Your task to perform on an android device: Open CNN.com Image 0: 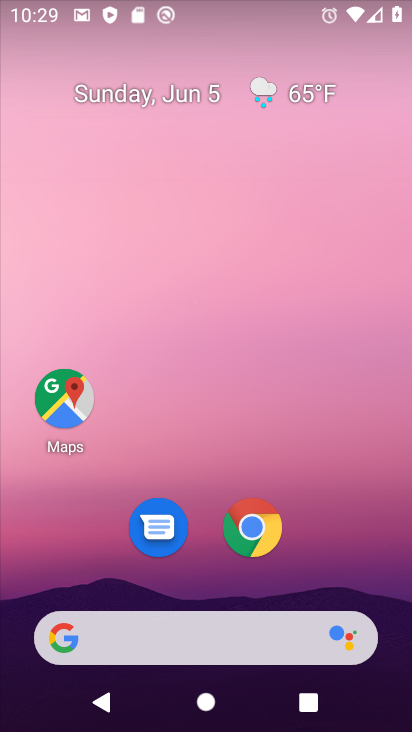
Step 0: click (242, 542)
Your task to perform on an android device: Open CNN.com Image 1: 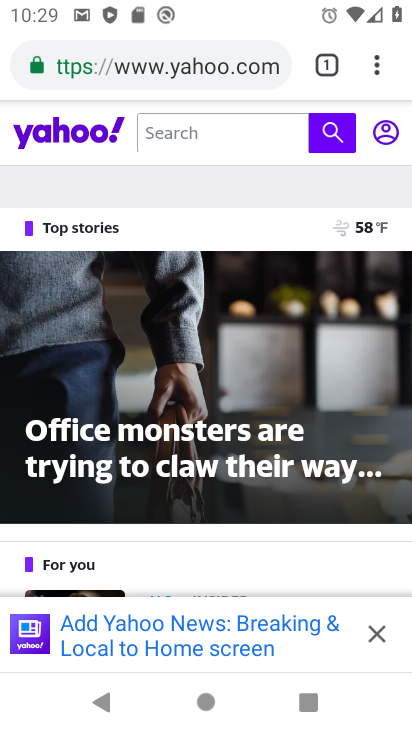
Step 1: click (337, 63)
Your task to perform on an android device: Open CNN.com Image 2: 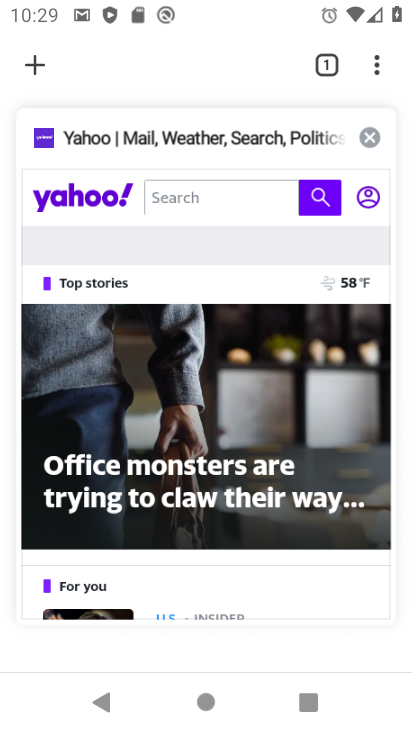
Step 2: click (365, 143)
Your task to perform on an android device: Open CNN.com Image 3: 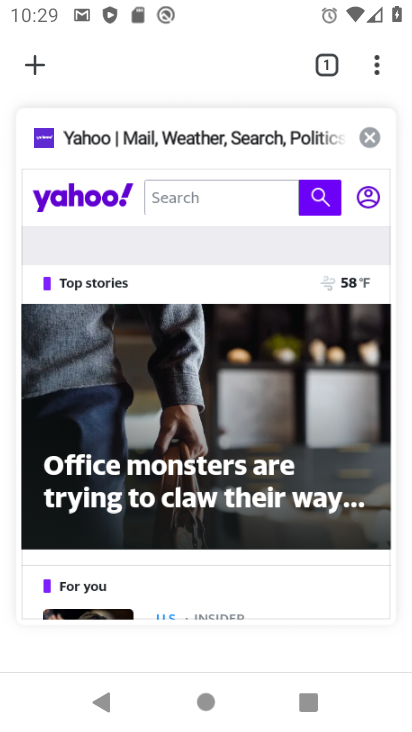
Step 3: click (373, 145)
Your task to perform on an android device: Open CNN.com Image 4: 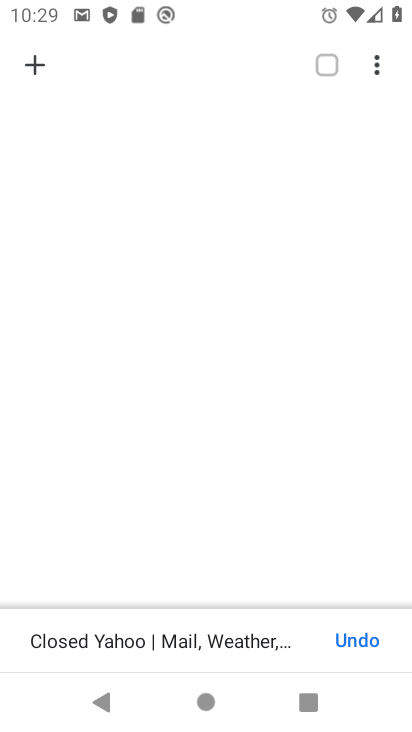
Step 4: click (32, 68)
Your task to perform on an android device: Open CNN.com Image 5: 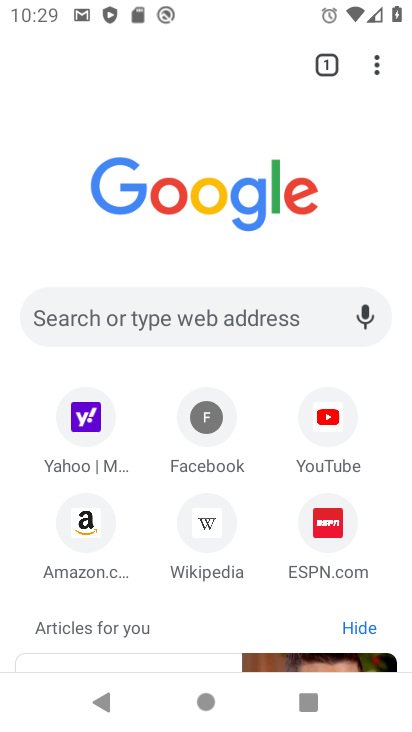
Step 5: click (172, 331)
Your task to perform on an android device: Open CNN.com Image 6: 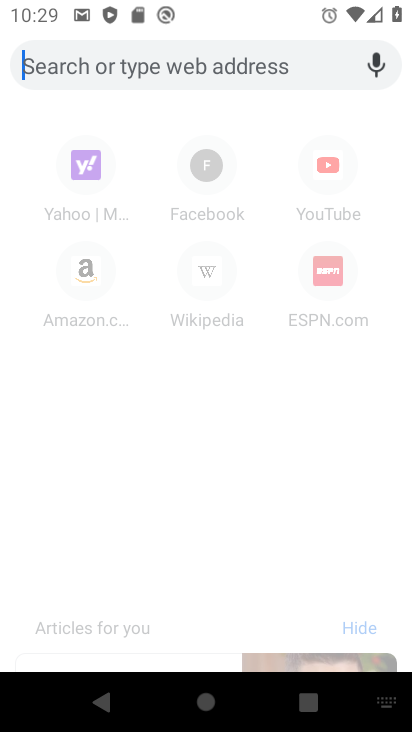
Step 6: type "CNN.com"
Your task to perform on an android device: Open CNN.com Image 7: 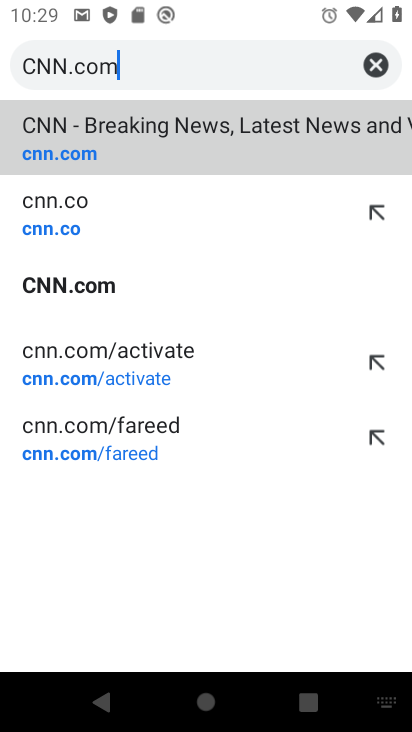
Step 7: type ""
Your task to perform on an android device: Open CNN.com Image 8: 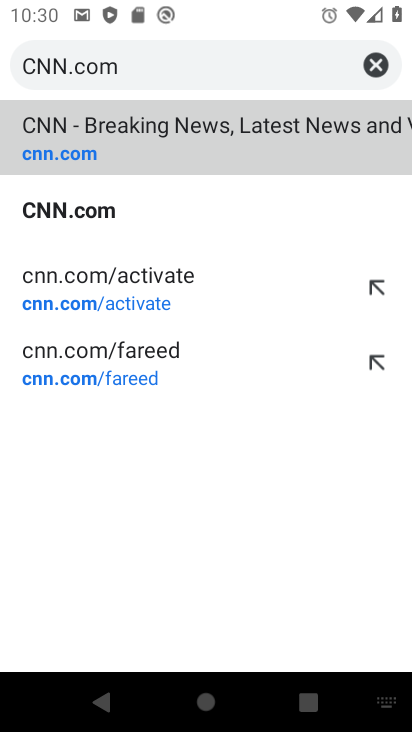
Step 8: click (79, 213)
Your task to perform on an android device: Open CNN.com Image 9: 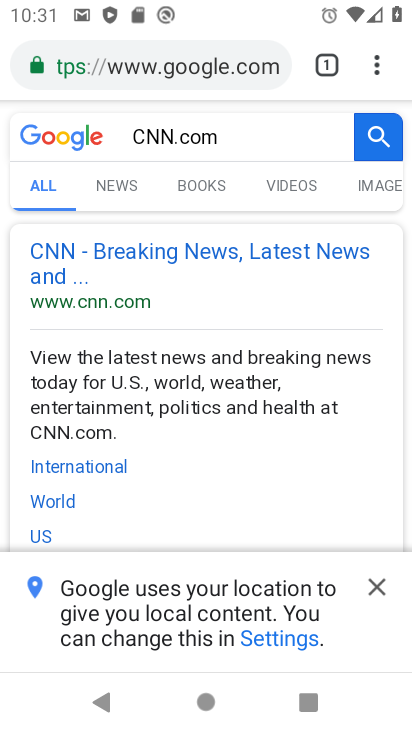
Step 9: click (133, 237)
Your task to perform on an android device: Open CNN.com Image 10: 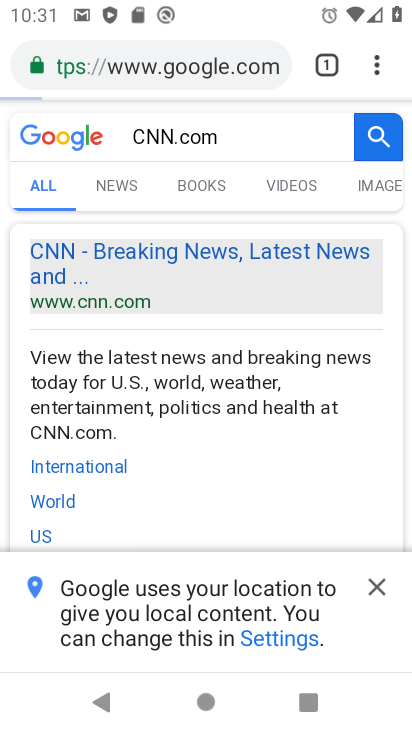
Step 10: click (131, 246)
Your task to perform on an android device: Open CNN.com Image 11: 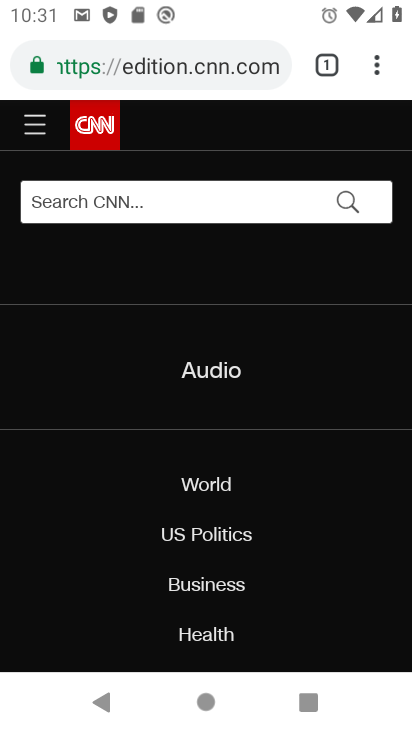
Step 11: task complete